Your task to perform on an android device: change text size in settings app Image 0: 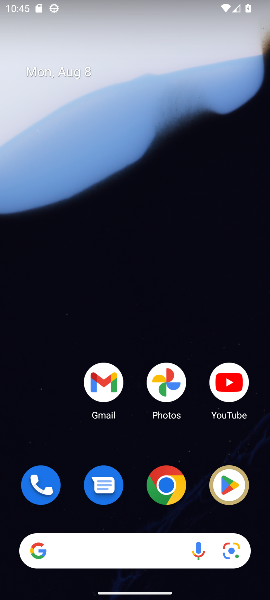
Step 0: press home button
Your task to perform on an android device: change text size in settings app Image 1: 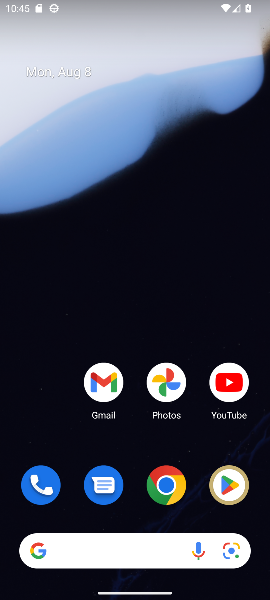
Step 1: drag from (139, 451) to (126, 12)
Your task to perform on an android device: change text size in settings app Image 2: 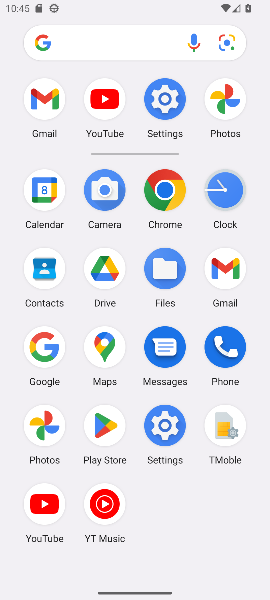
Step 2: click (161, 422)
Your task to perform on an android device: change text size in settings app Image 3: 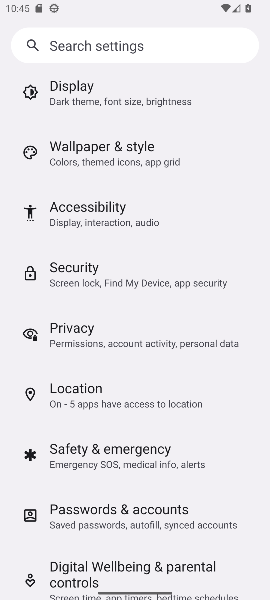
Step 3: drag from (118, 500) to (133, 173)
Your task to perform on an android device: change text size in settings app Image 4: 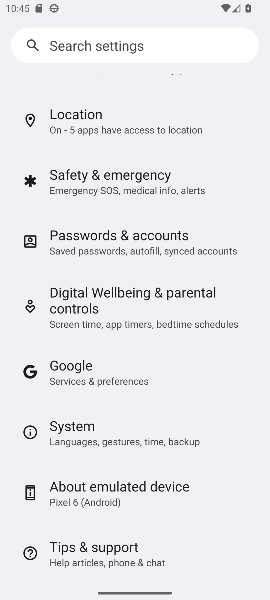
Step 4: click (75, 422)
Your task to perform on an android device: change text size in settings app Image 5: 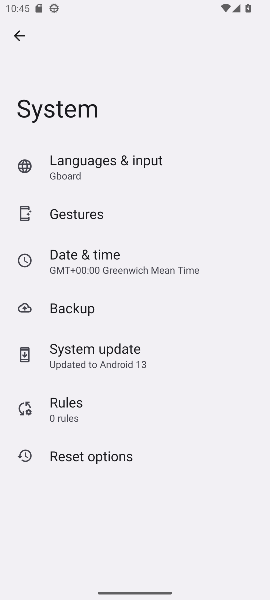
Step 5: press home button
Your task to perform on an android device: change text size in settings app Image 6: 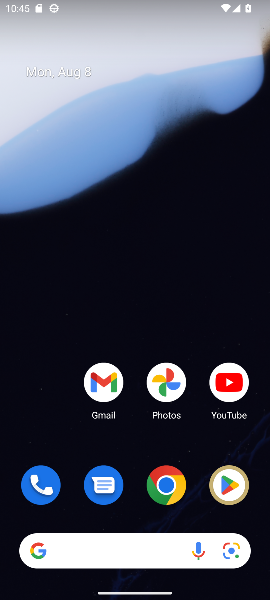
Step 6: drag from (183, 438) to (166, 40)
Your task to perform on an android device: change text size in settings app Image 7: 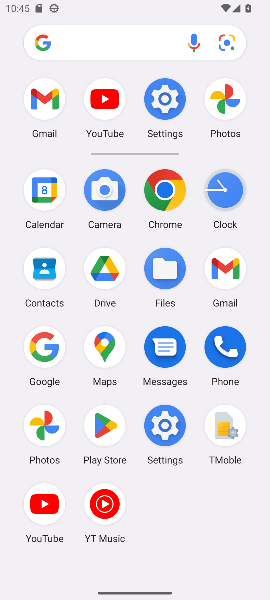
Step 7: click (160, 424)
Your task to perform on an android device: change text size in settings app Image 8: 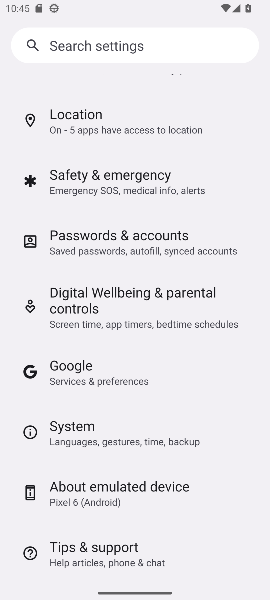
Step 8: drag from (99, 129) to (123, 447)
Your task to perform on an android device: change text size in settings app Image 9: 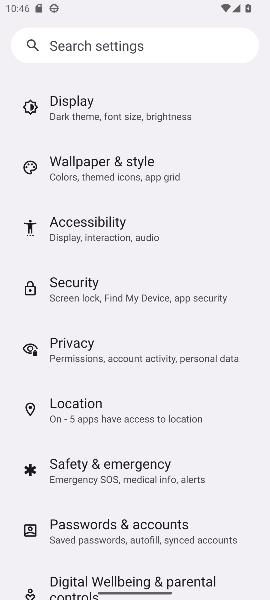
Step 9: drag from (104, 99) to (106, 199)
Your task to perform on an android device: change text size in settings app Image 10: 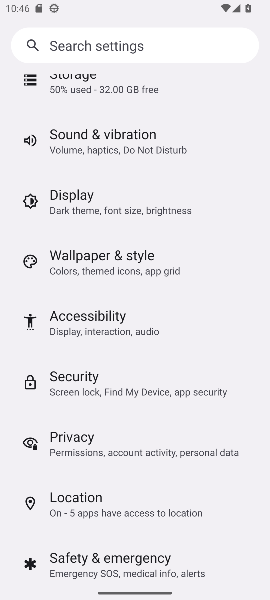
Step 10: click (75, 202)
Your task to perform on an android device: change text size in settings app Image 11: 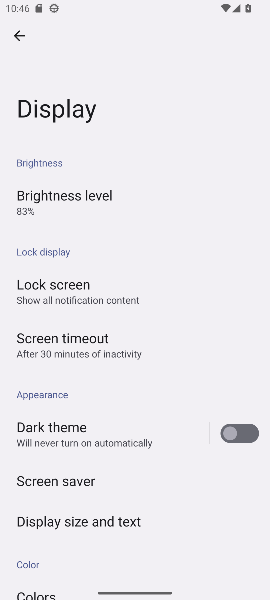
Step 11: task complete